Your task to perform on an android device: Search for Mexican restaurants on Maps Image 0: 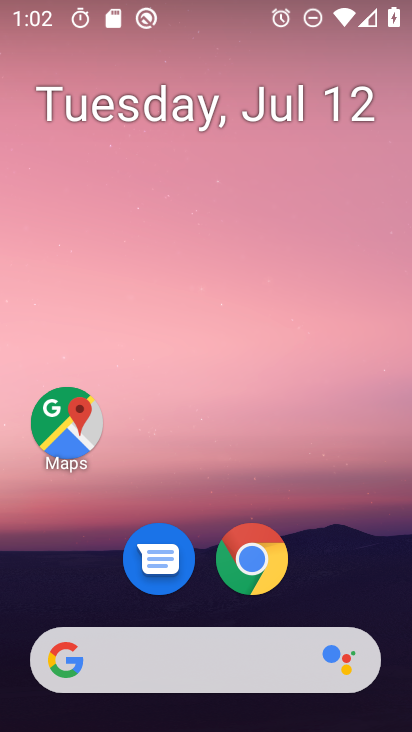
Step 0: click (58, 422)
Your task to perform on an android device: Search for Mexican restaurants on Maps Image 1: 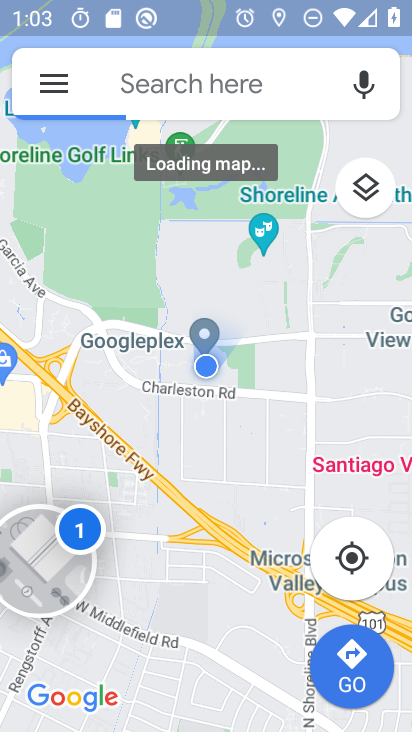
Step 1: click (162, 82)
Your task to perform on an android device: Search for Mexican restaurants on Maps Image 2: 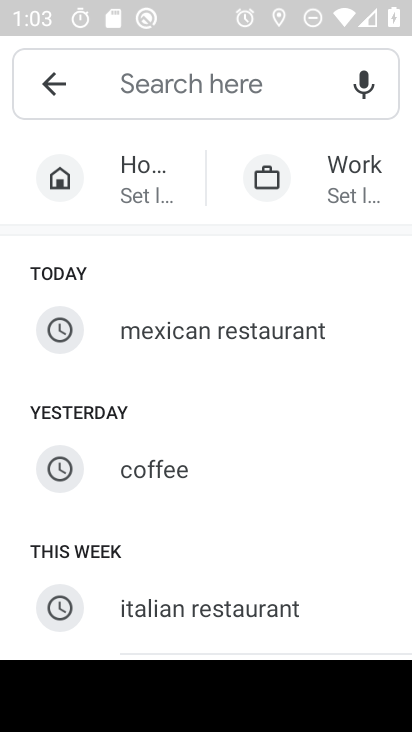
Step 2: drag from (200, 619) to (239, 386)
Your task to perform on an android device: Search for Mexican restaurants on Maps Image 3: 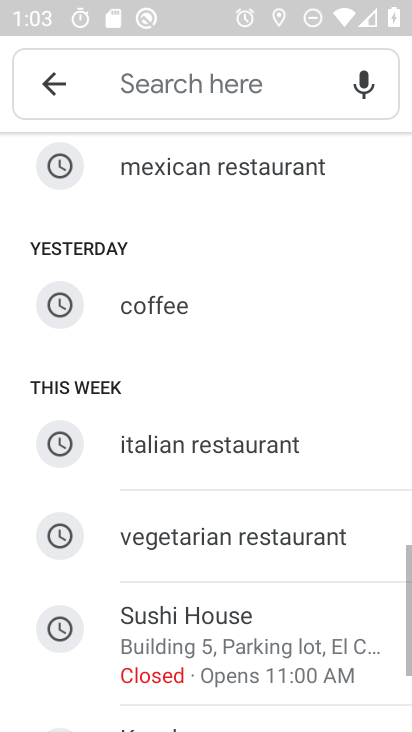
Step 3: click (191, 169)
Your task to perform on an android device: Search for Mexican restaurants on Maps Image 4: 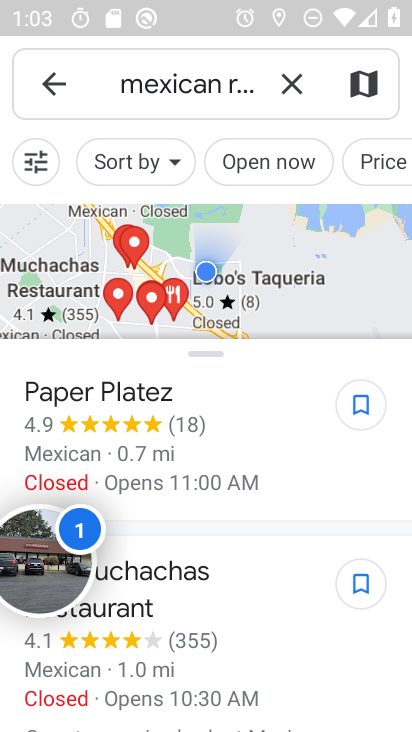
Step 4: task complete